Your task to perform on an android device: turn off notifications settings in the gmail app Image 0: 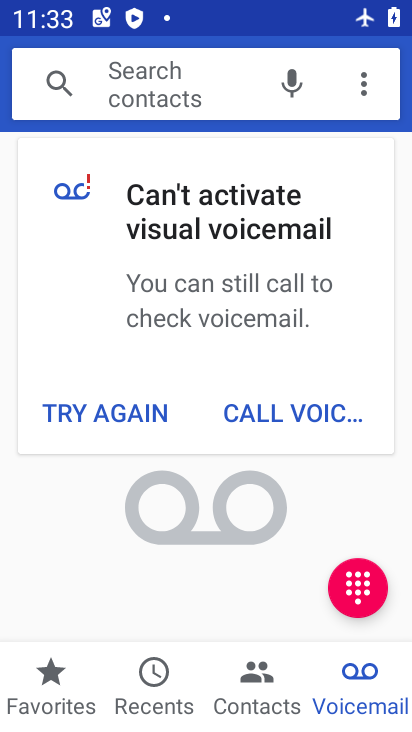
Step 0: press home button
Your task to perform on an android device: turn off notifications settings in the gmail app Image 1: 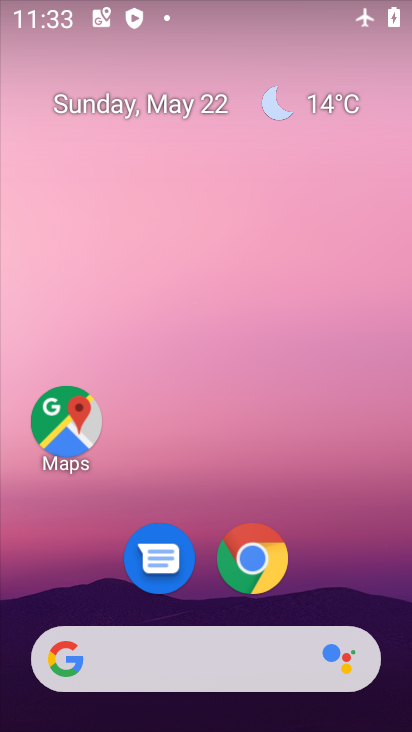
Step 1: drag from (351, 590) to (351, 6)
Your task to perform on an android device: turn off notifications settings in the gmail app Image 2: 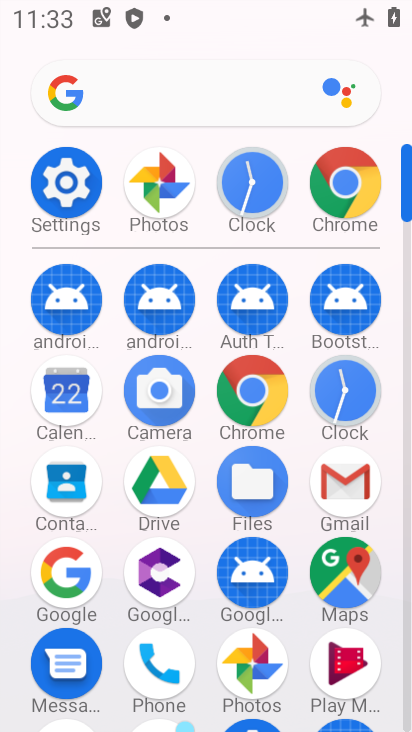
Step 2: click (338, 488)
Your task to perform on an android device: turn off notifications settings in the gmail app Image 3: 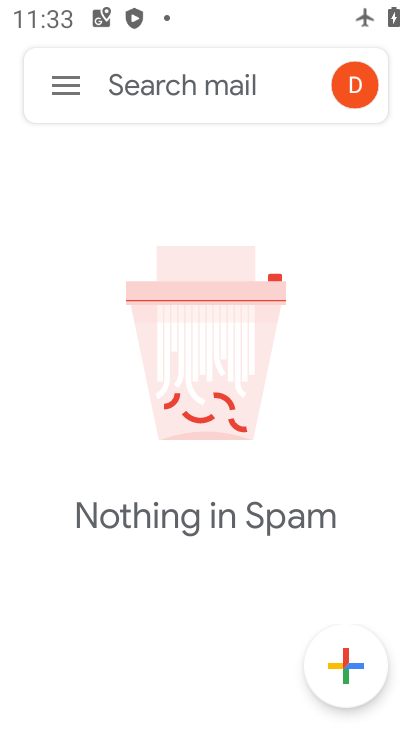
Step 3: click (63, 86)
Your task to perform on an android device: turn off notifications settings in the gmail app Image 4: 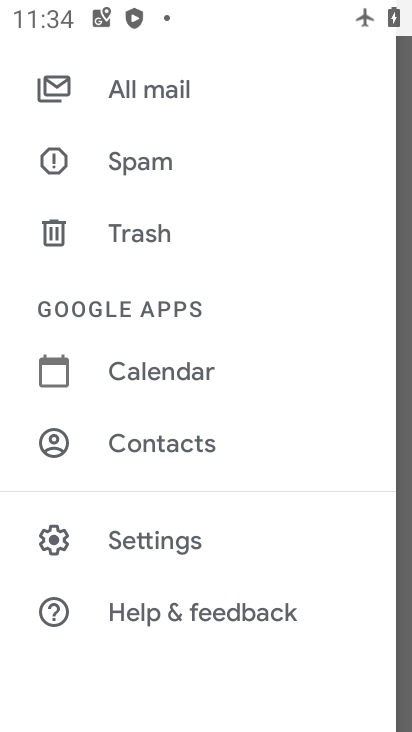
Step 4: click (166, 546)
Your task to perform on an android device: turn off notifications settings in the gmail app Image 5: 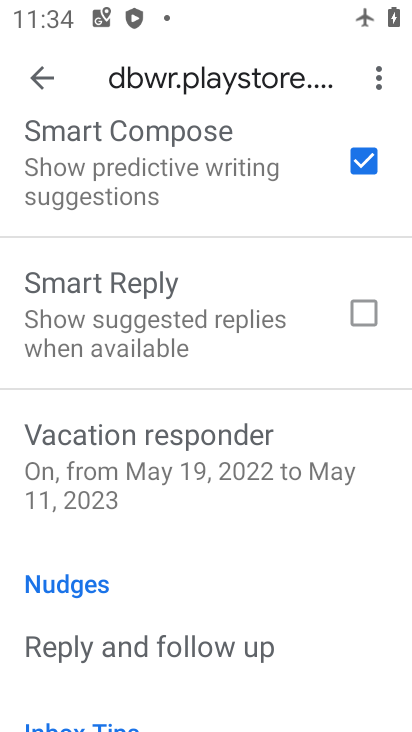
Step 5: click (42, 79)
Your task to perform on an android device: turn off notifications settings in the gmail app Image 6: 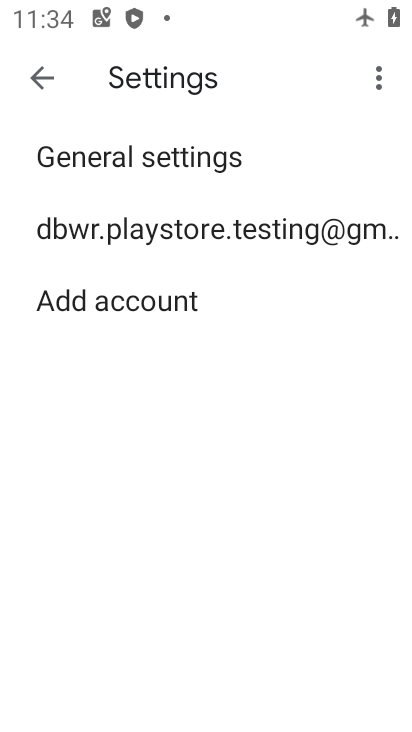
Step 6: click (96, 156)
Your task to perform on an android device: turn off notifications settings in the gmail app Image 7: 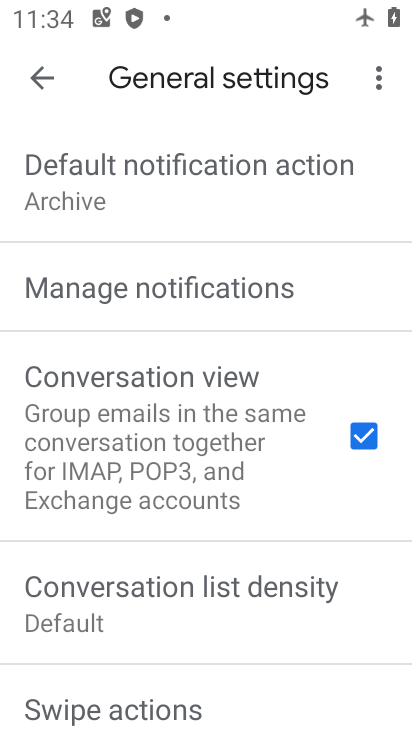
Step 7: click (125, 286)
Your task to perform on an android device: turn off notifications settings in the gmail app Image 8: 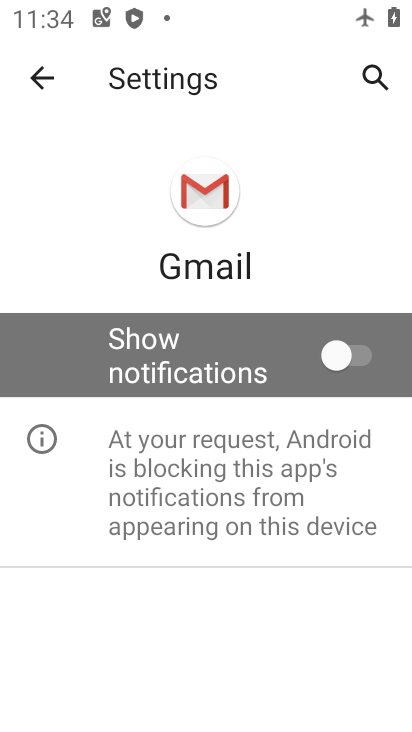
Step 8: task complete